Your task to perform on an android device: Turn off the flashlight Image 0: 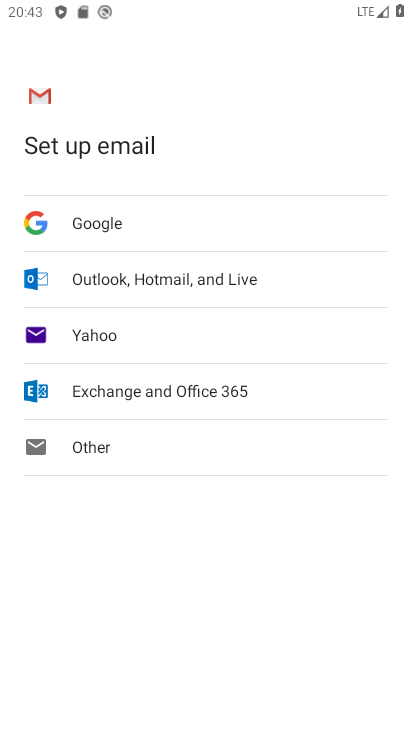
Step 0: press home button
Your task to perform on an android device: Turn off the flashlight Image 1: 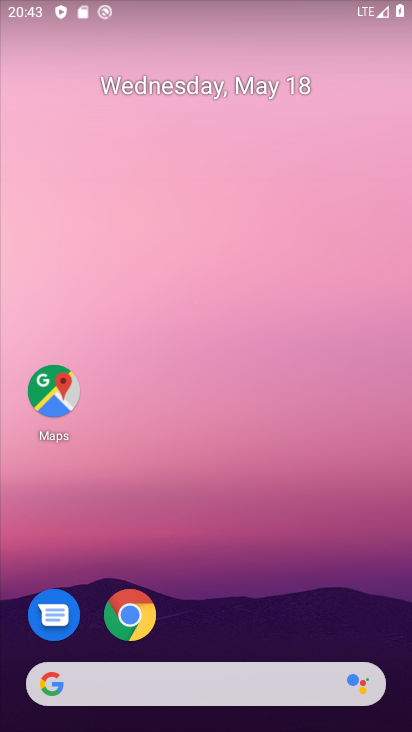
Step 1: task complete